Your task to perform on an android device: open chrome privacy settings Image 0: 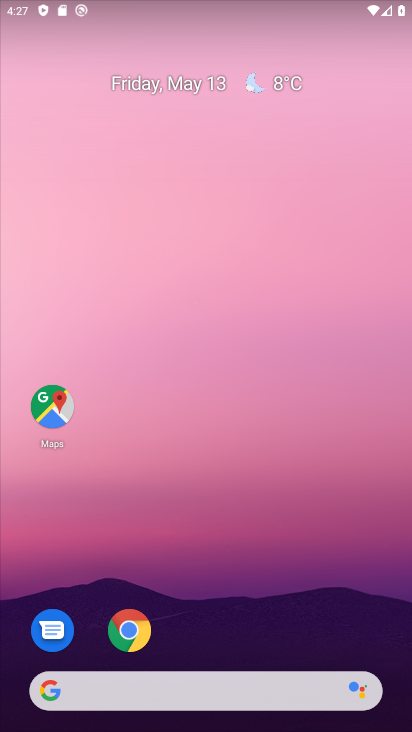
Step 0: click (132, 629)
Your task to perform on an android device: open chrome privacy settings Image 1: 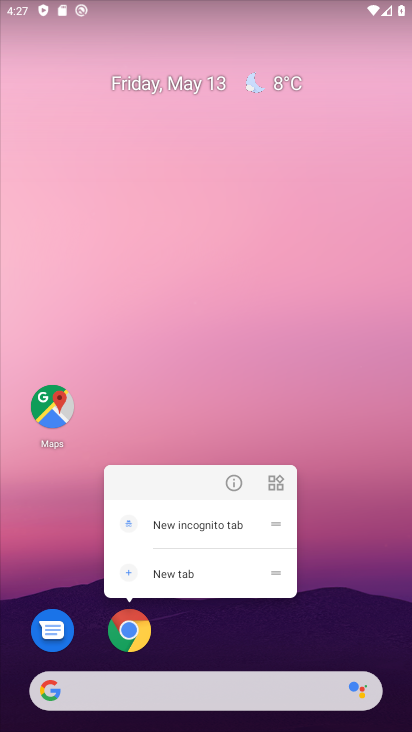
Step 1: click (133, 626)
Your task to perform on an android device: open chrome privacy settings Image 2: 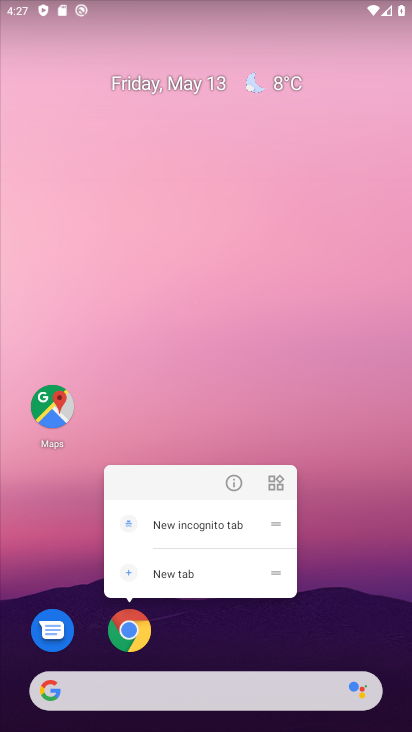
Step 2: click (133, 626)
Your task to perform on an android device: open chrome privacy settings Image 3: 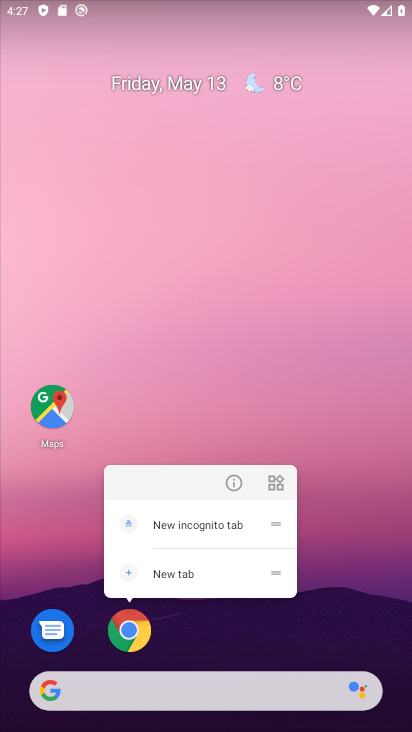
Step 3: click (134, 626)
Your task to perform on an android device: open chrome privacy settings Image 4: 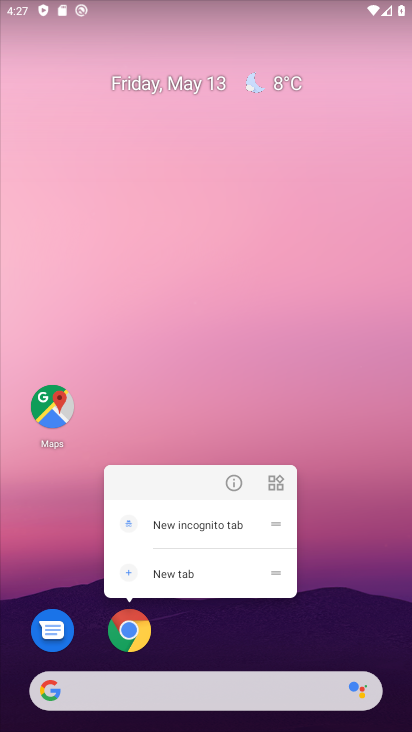
Step 4: click (134, 627)
Your task to perform on an android device: open chrome privacy settings Image 5: 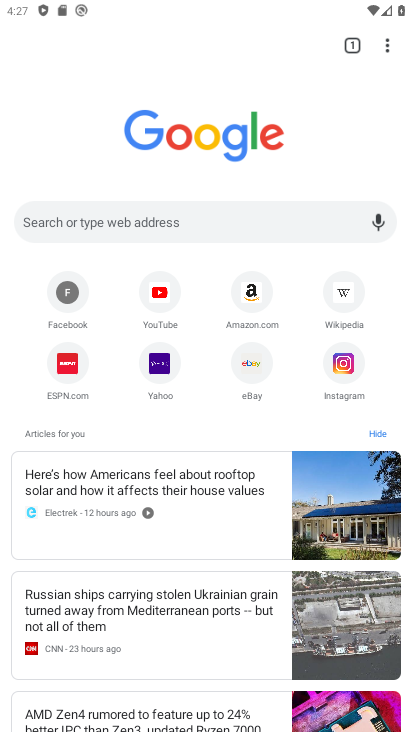
Step 5: click (390, 45)
Your task to perform on an android device: open chrome privacy settings Image 6: 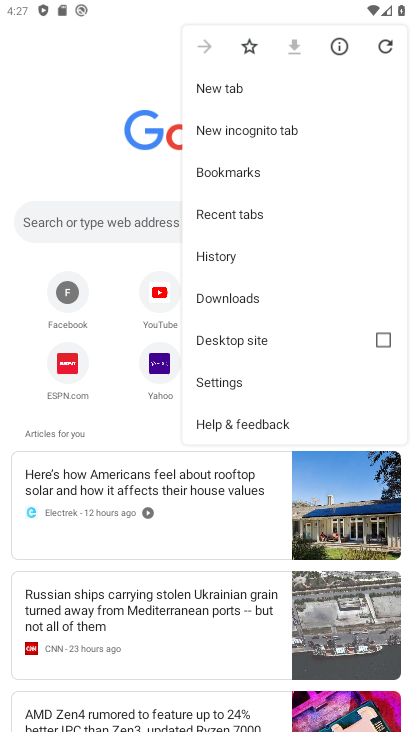
Step 6: click (280, 388)
Your task to perform on an android device: open chrome privacy settings Image 7: 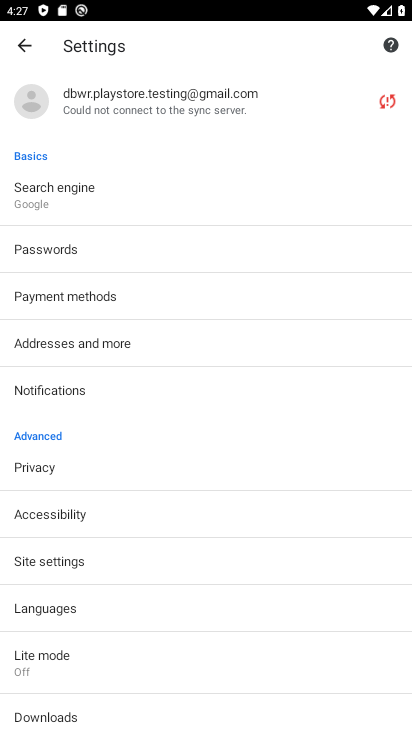
Step 7: drag from (203, 638) to (245, 502)
Your task to perform on an android device: open chrome privacy settings Image 8: 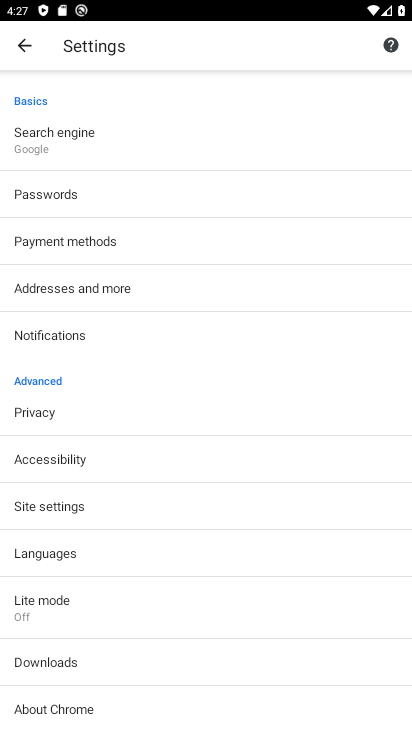
Step 8: click (157, 405)
Your task to perform on an android device: open chrome privacy settings Image 9: 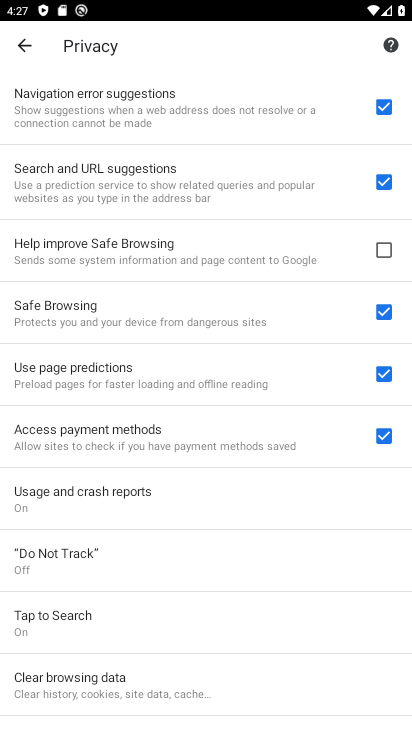
Step 9: task complete